Your task to perform on an android device: Go to accessibility settings Image 0: 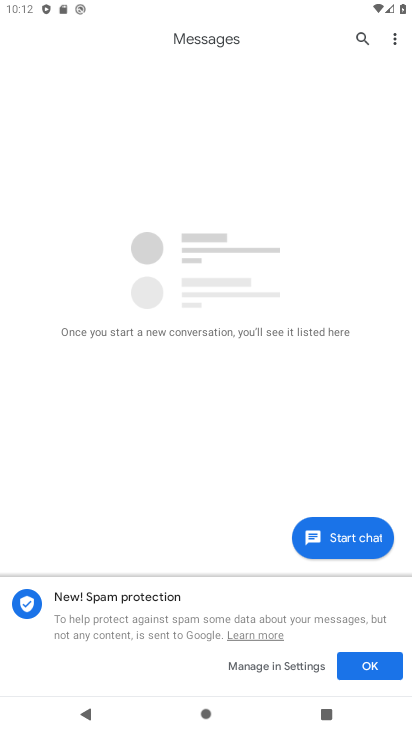
Step 0: press back button
Your task to perform on an android device: Go to accessibility settings Image 1: 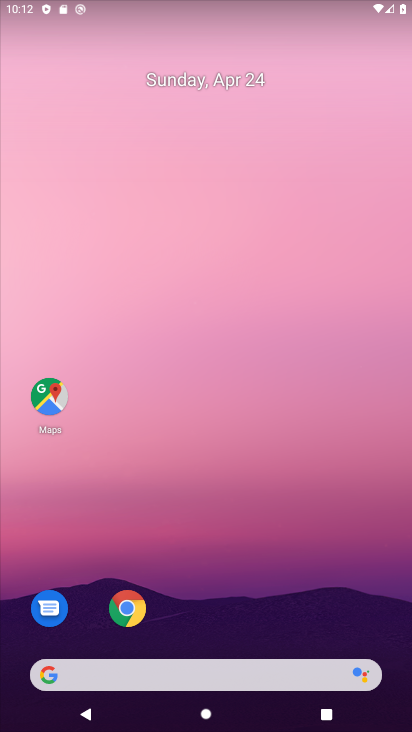
Step 1: drag from (278, 490) to (256, 29)
Your task to perform on an android device: Go to accessibility settings Image 2: 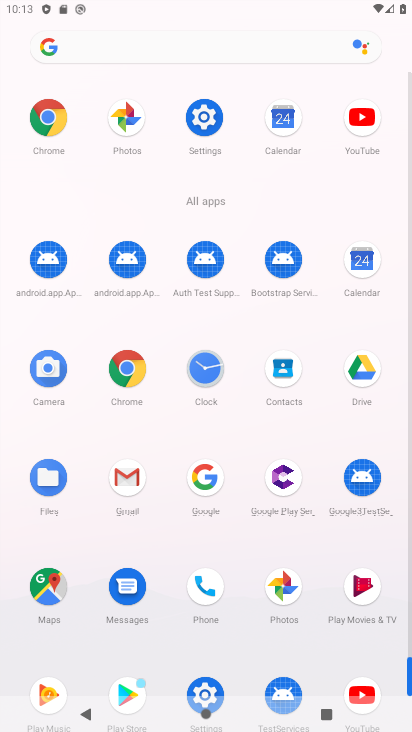
Step 2: click (203, 116)
Your task to perform on an android device: Go to accessibility settings Image 3: 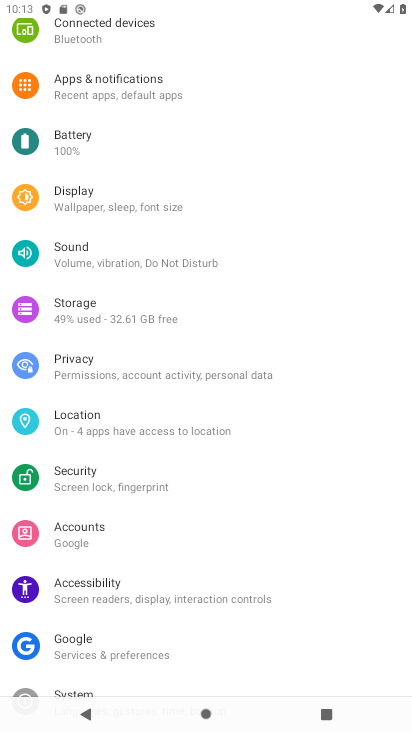
Step 3: drag from (241, 97) to (230, 418)
Your task to perform on an android device: Go to accessibility settings Image 4: 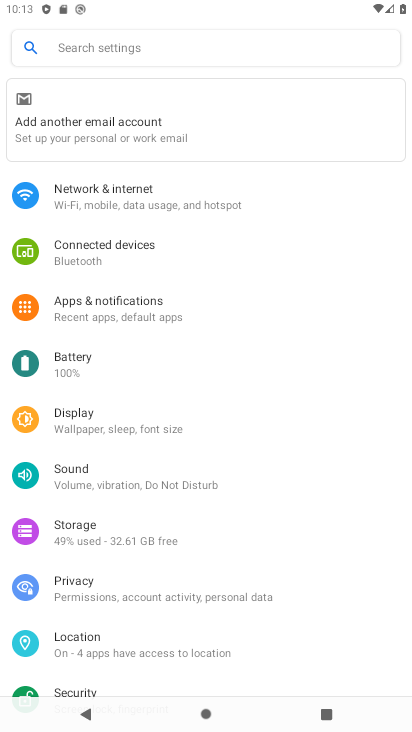
Step 4: drag from (208, 444) to (210, 206)
Your task to perform on an android device: Go to accessibility settings Image 5: 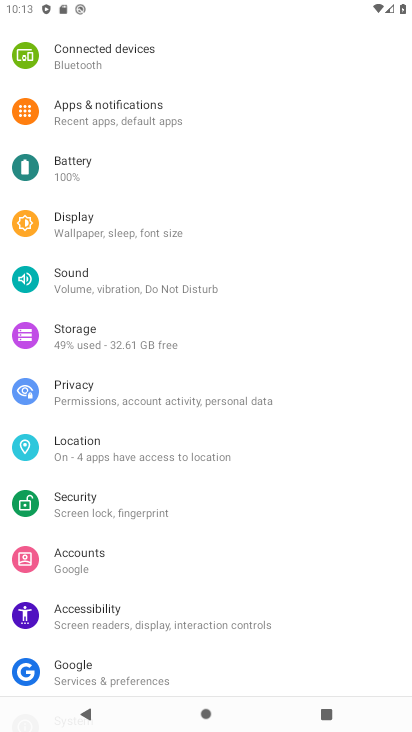
Step 5: drag from (271, 528) to (270, 182)
Your task to perform on an android device: Go to accessibility settings Image 6: 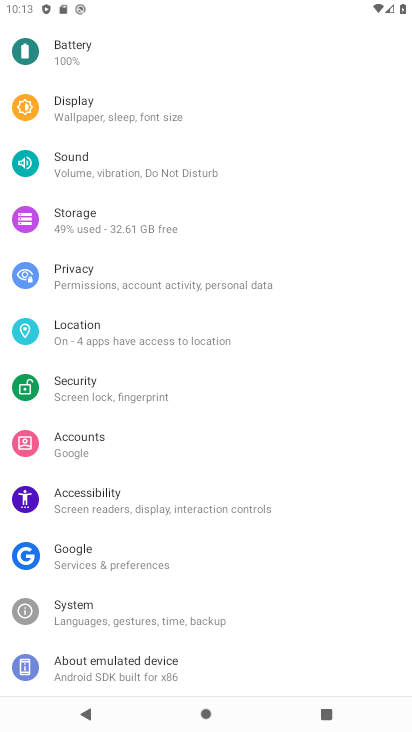
Step 6: drag from (240, 546) to (236, 99)
Your task to perform on an android device: Go to accessibility settings Image 7: 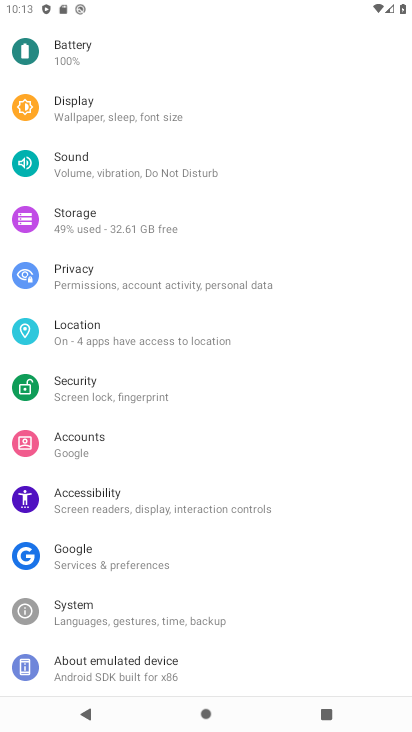
Step 7: click (112, 514)
Your task to perform on an android device: Go to accessibility settings Image 8: 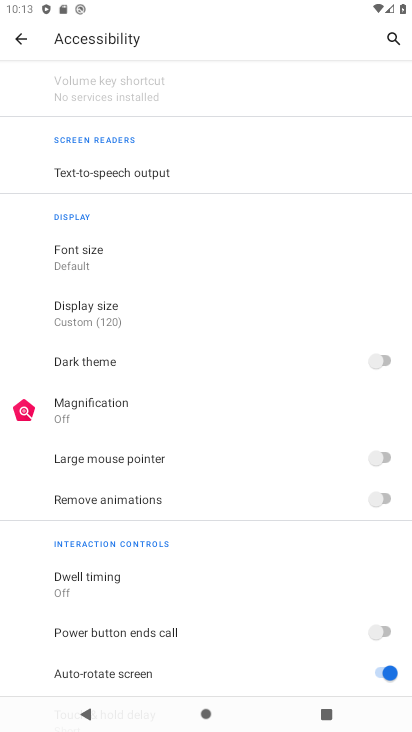
Step 8: task complete